Your task to perform on an android device: Show the shopping cart on ebay. Search for acer nitro on ebay, select the first entry, add it to the cart, then select checkout. Image 0: 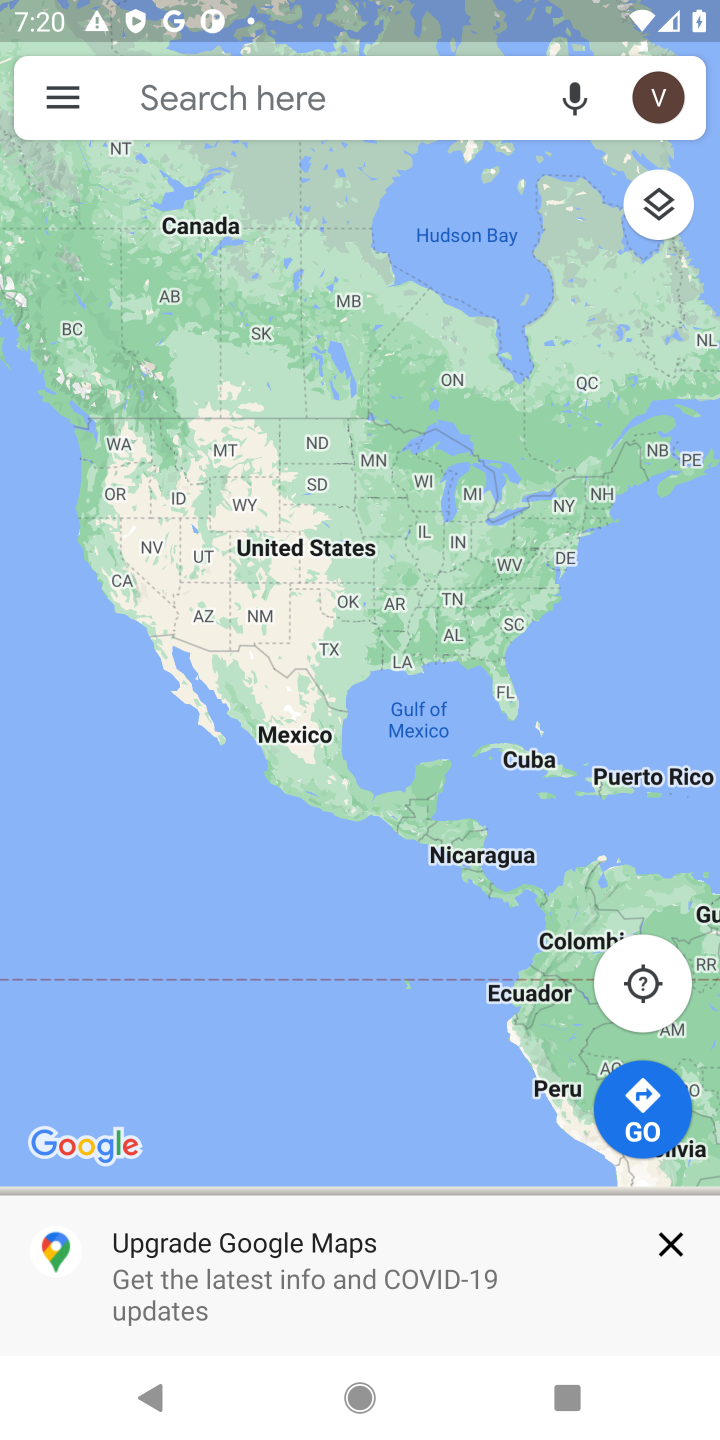
Step 0: press home button
Your task to perform on an android device: Show the shopping cart on ebay. Search for acer nitro on ebay, select the first entry, add it to the cart, then select checkout. Image 1: 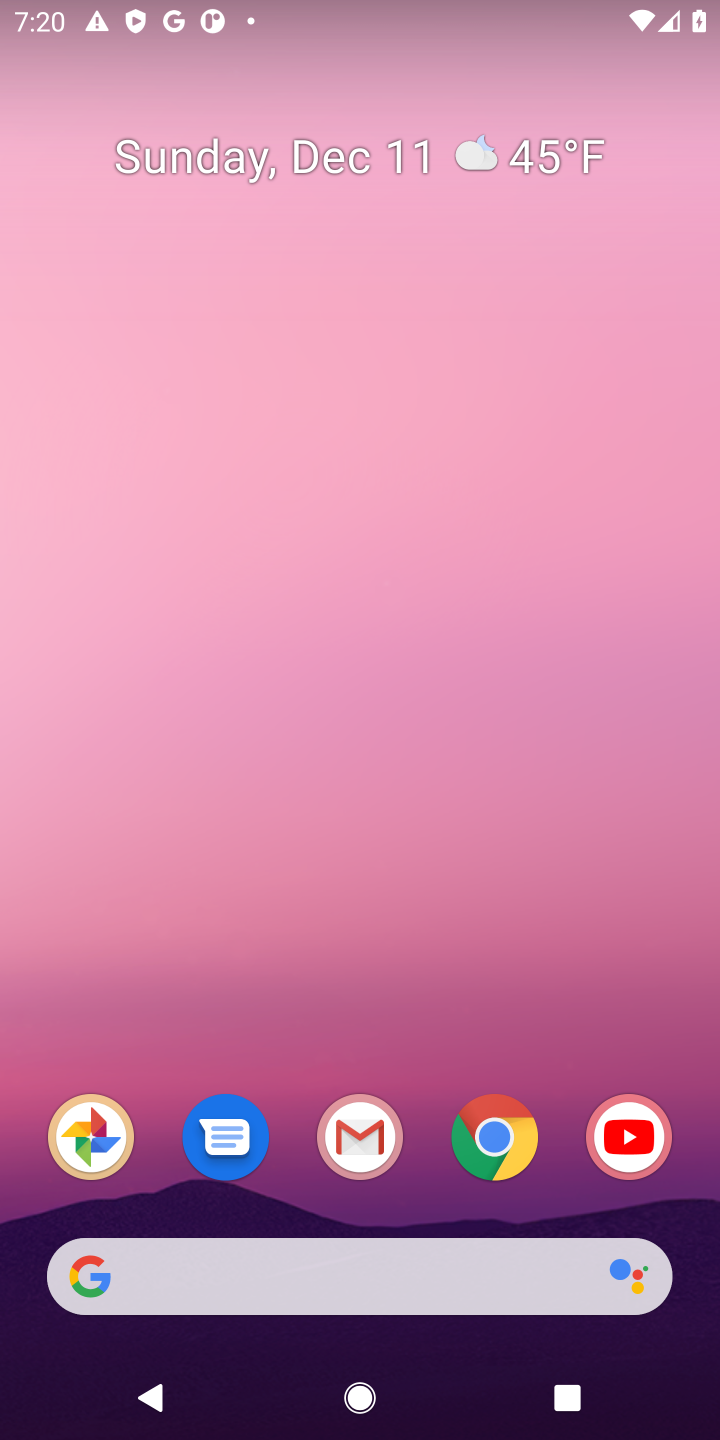
Step 1: click (505, 1149)
Your task to perform on an android device: Show the shopping cart on ebay. Search for acer nitro on ebay, select the first entry, add it to the cart, then select checkout. Image 2: 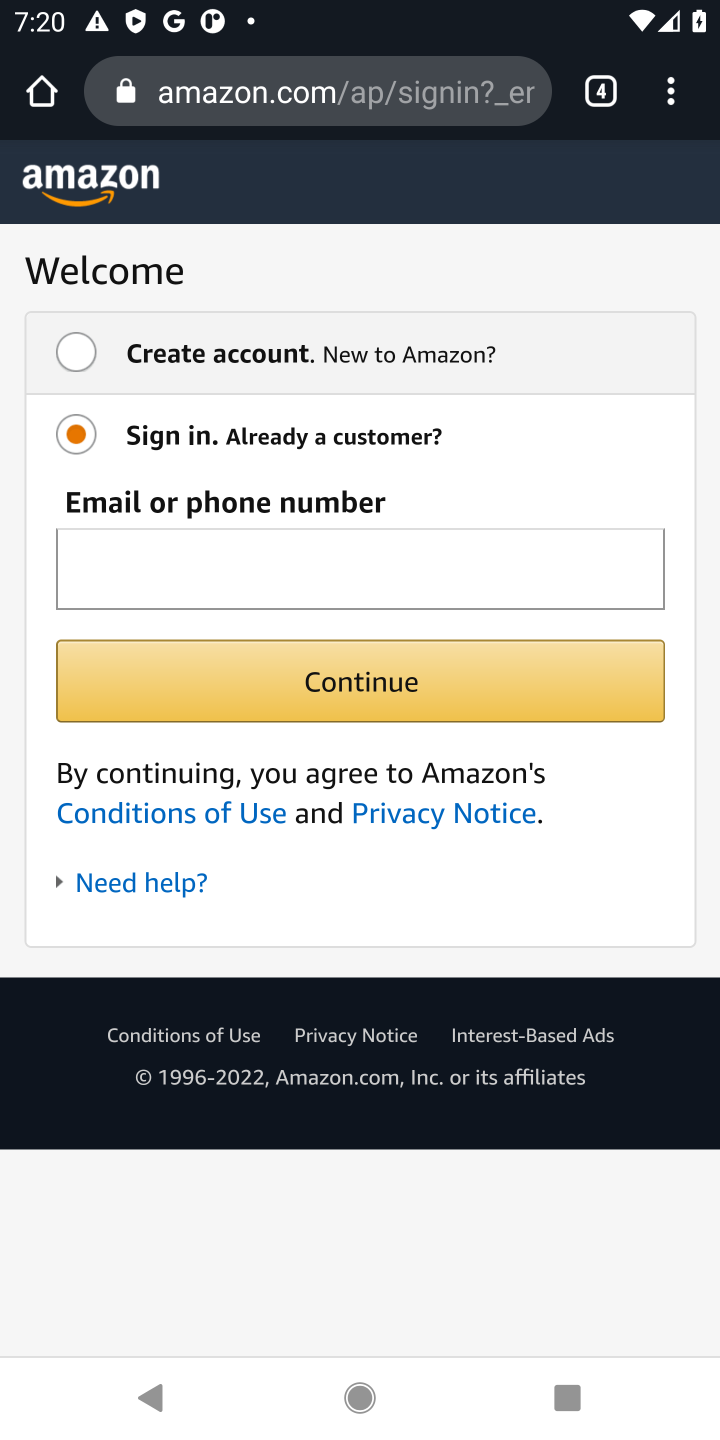
Step 2: click (328, 84)
Your task to perform on an android device: Show the shopping cart on ebay. Search for acer nitro on ebay, select the first entry, add it to the cart, then select checkout. Image 3: 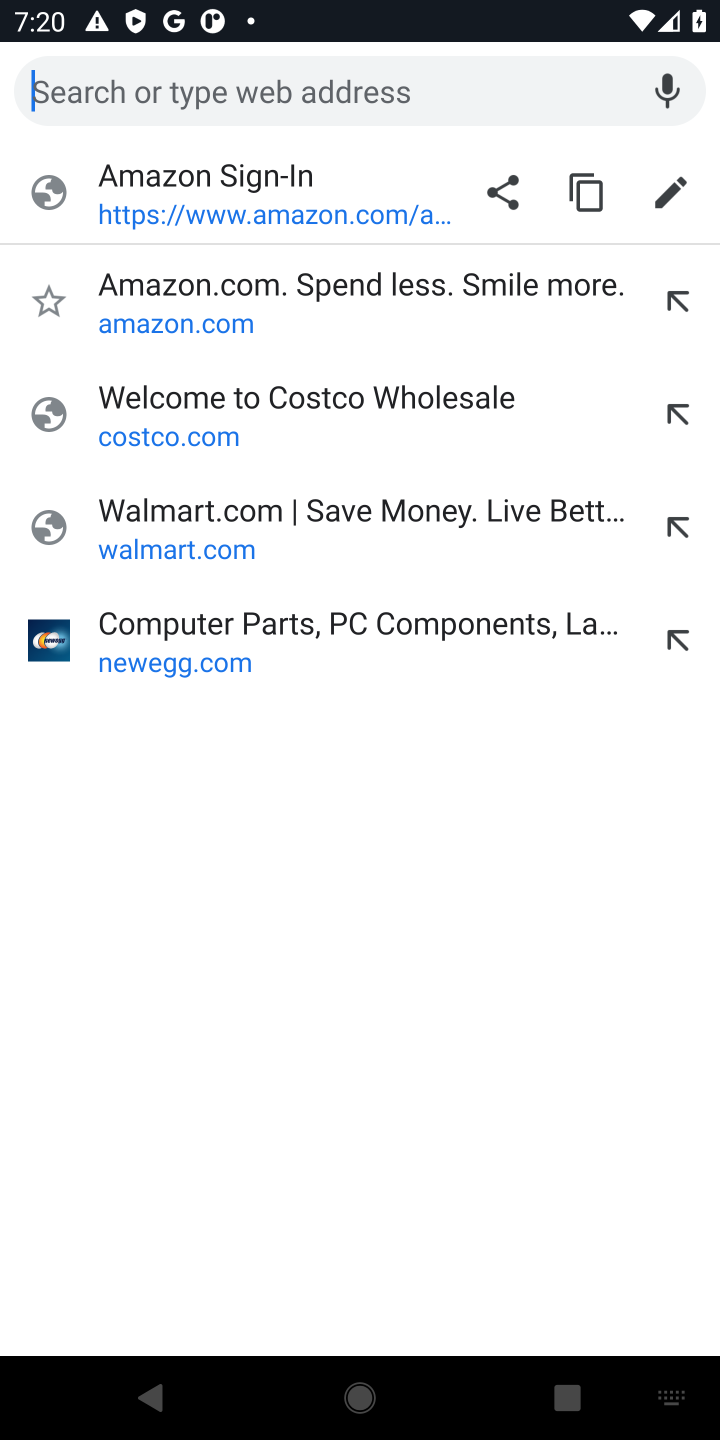
Step 3: type "ebay"
Your task to perform on an android device: Show the shopping cart on ebay. Search for acer nitro on ebay, select the first entry, add it to the cart, then select checkout. Image 4: 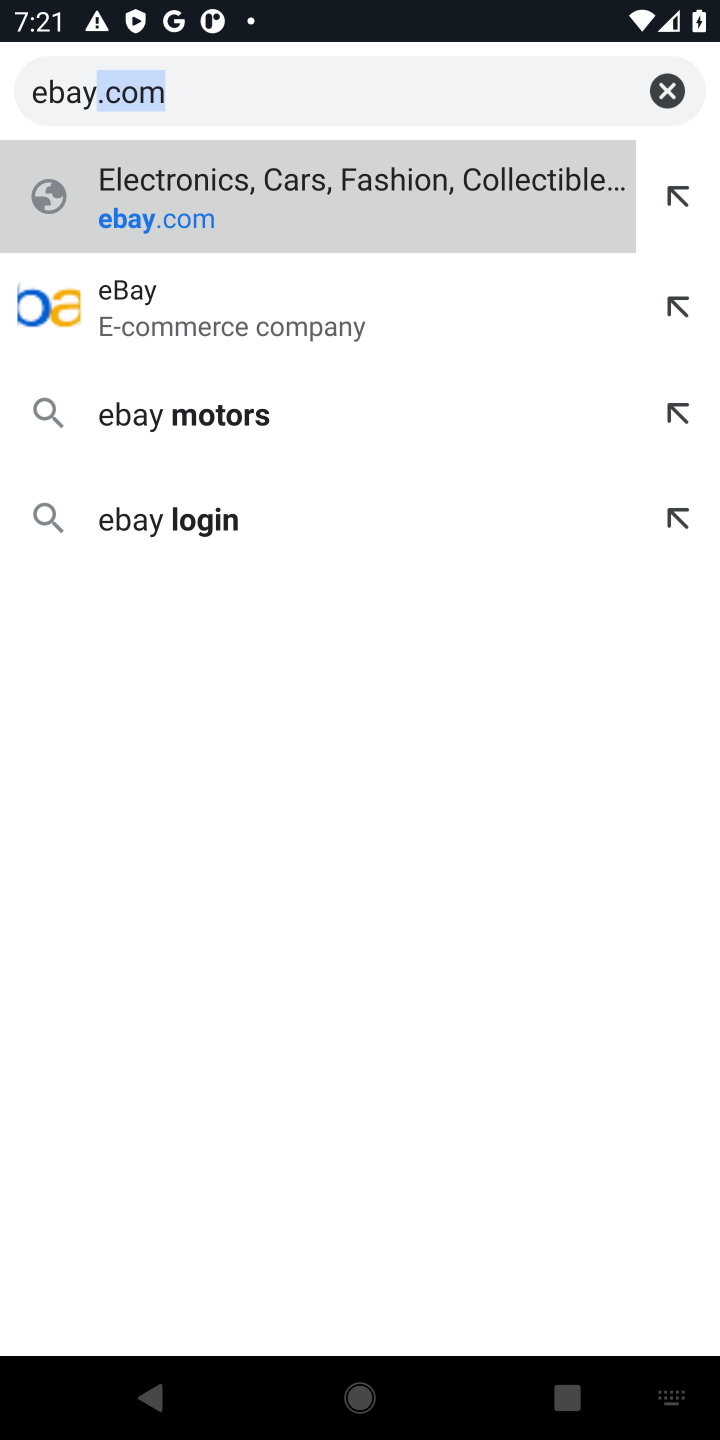
Step 4: click (96, 315)
Your task to perform on an android device: Show the shopping cart on ebay. Search for acer nitro on ebay, select the first entry, add it to the cart, then select checkout. Image 5: 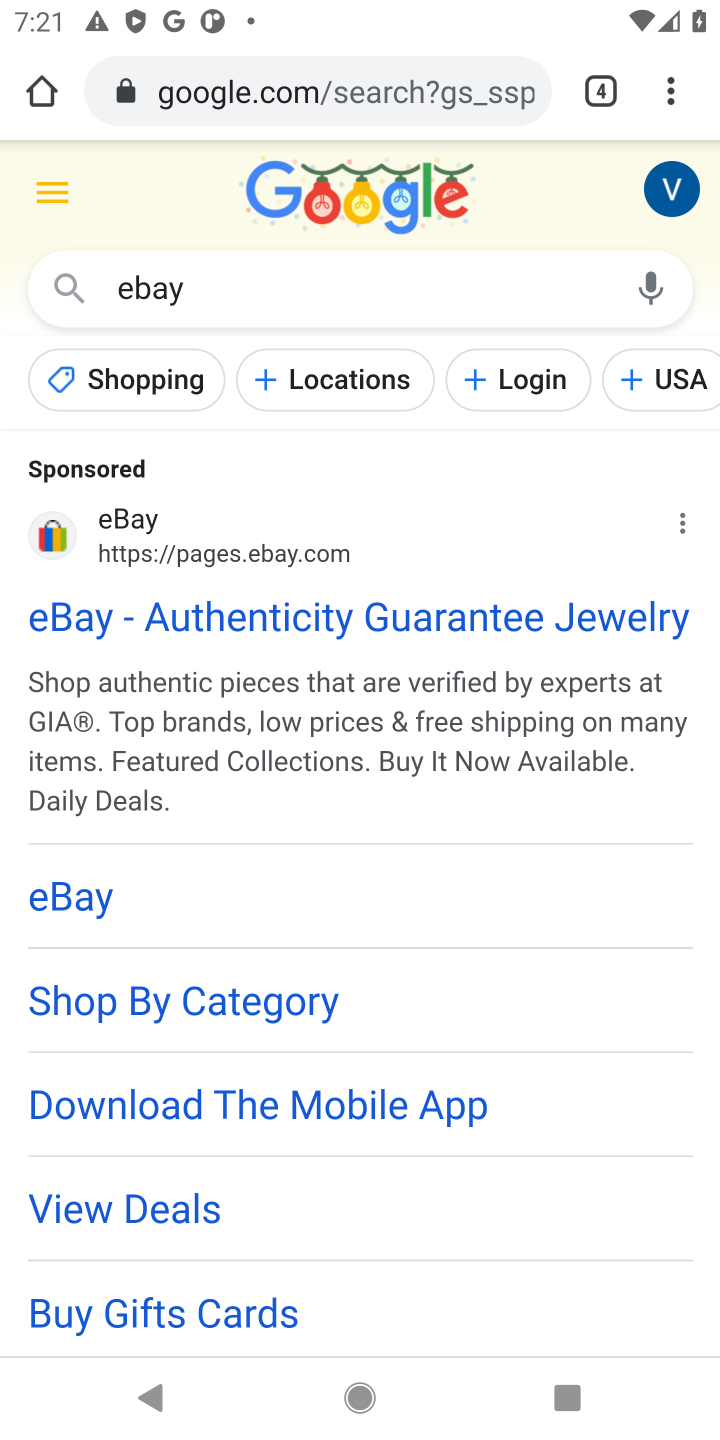
Step 5: click (141, 610)
Your task to perform on an android device: Show the shopping cart on ebay. Search for acer nitro on ebay, select the first entry, add it to the cart, then select checkout. Image 6: 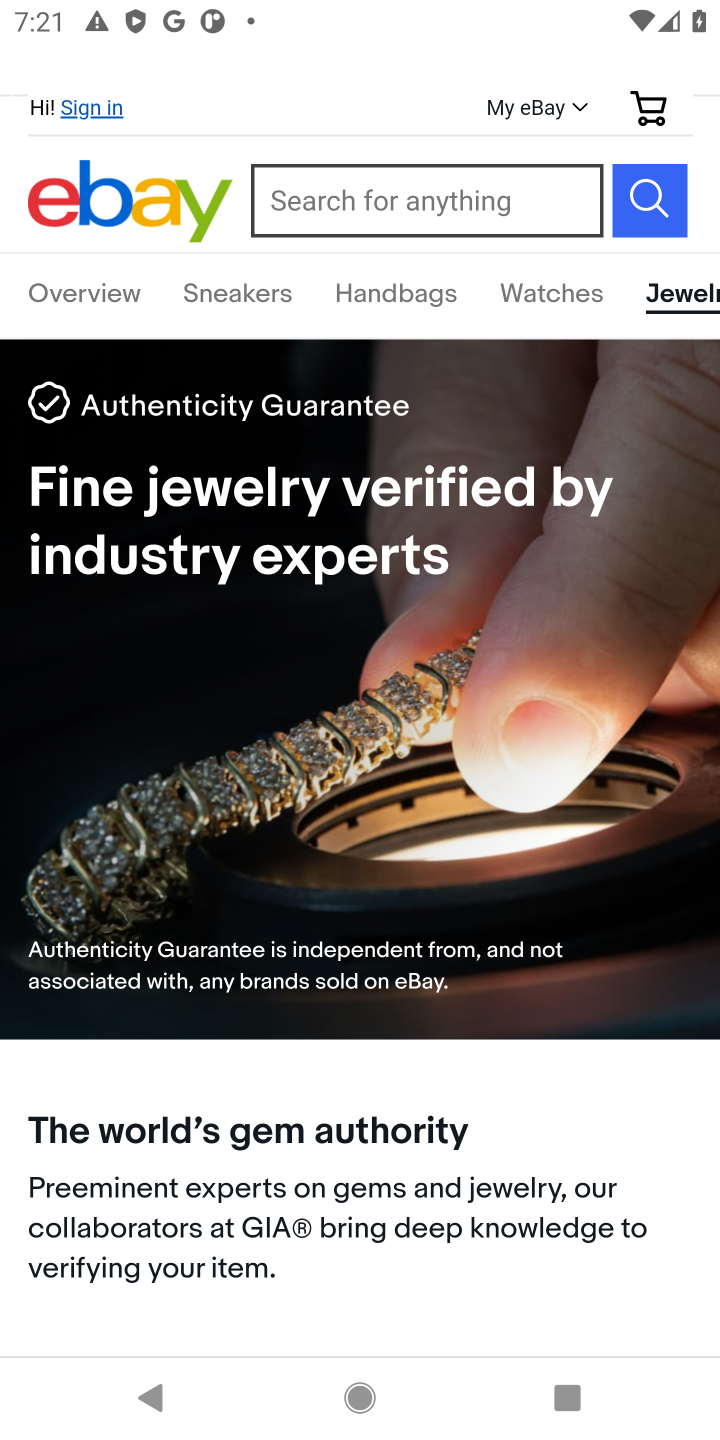
Step 6: click (650, 97)
Your task to perform on an android device: Show the shopping cart on ebay. Search for acer nitro on ebay, select the first entry, add it to the cart, then select checkout. Image 7: 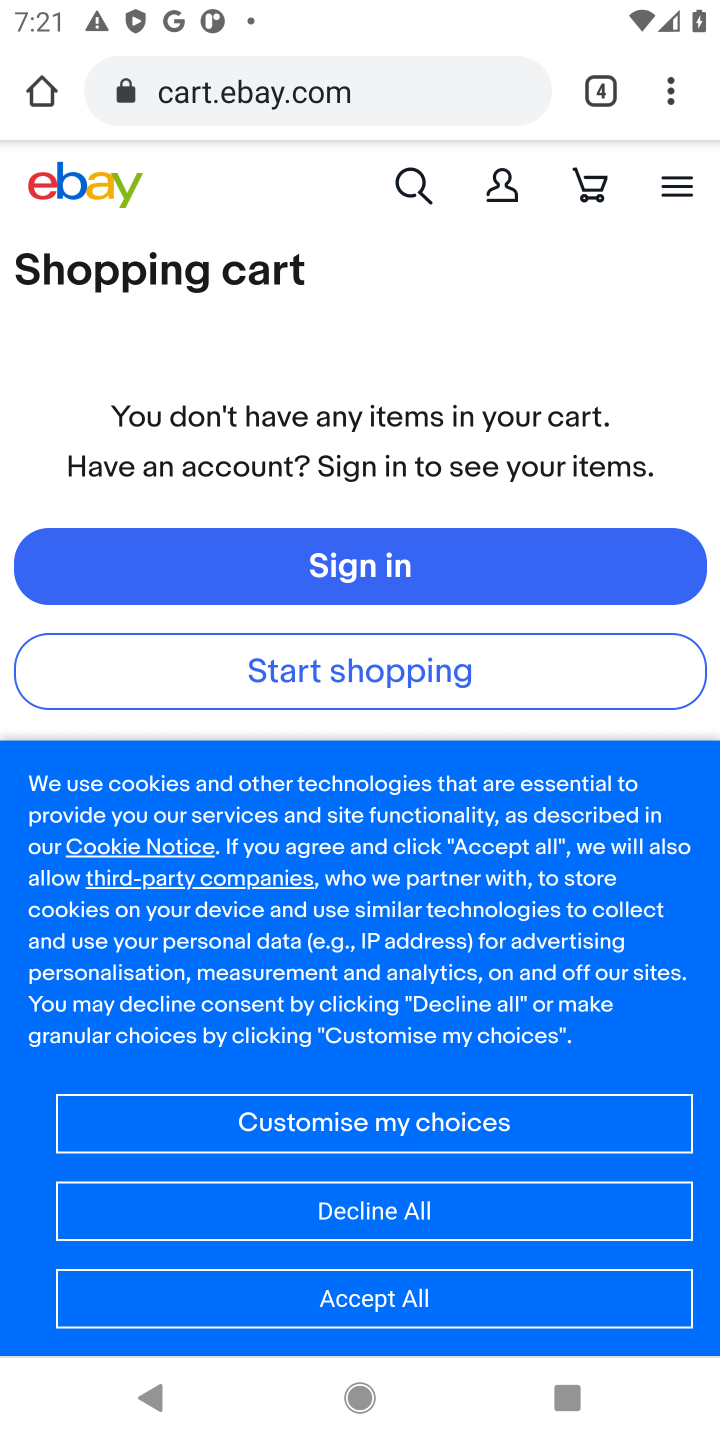
Step 7: click (420, 177)
Your task to perform on an android device: Show the shopping cart on ebay. Search for acer nitro on ebay, select the first entry, add it to the cart, then select checkout. Image 8: 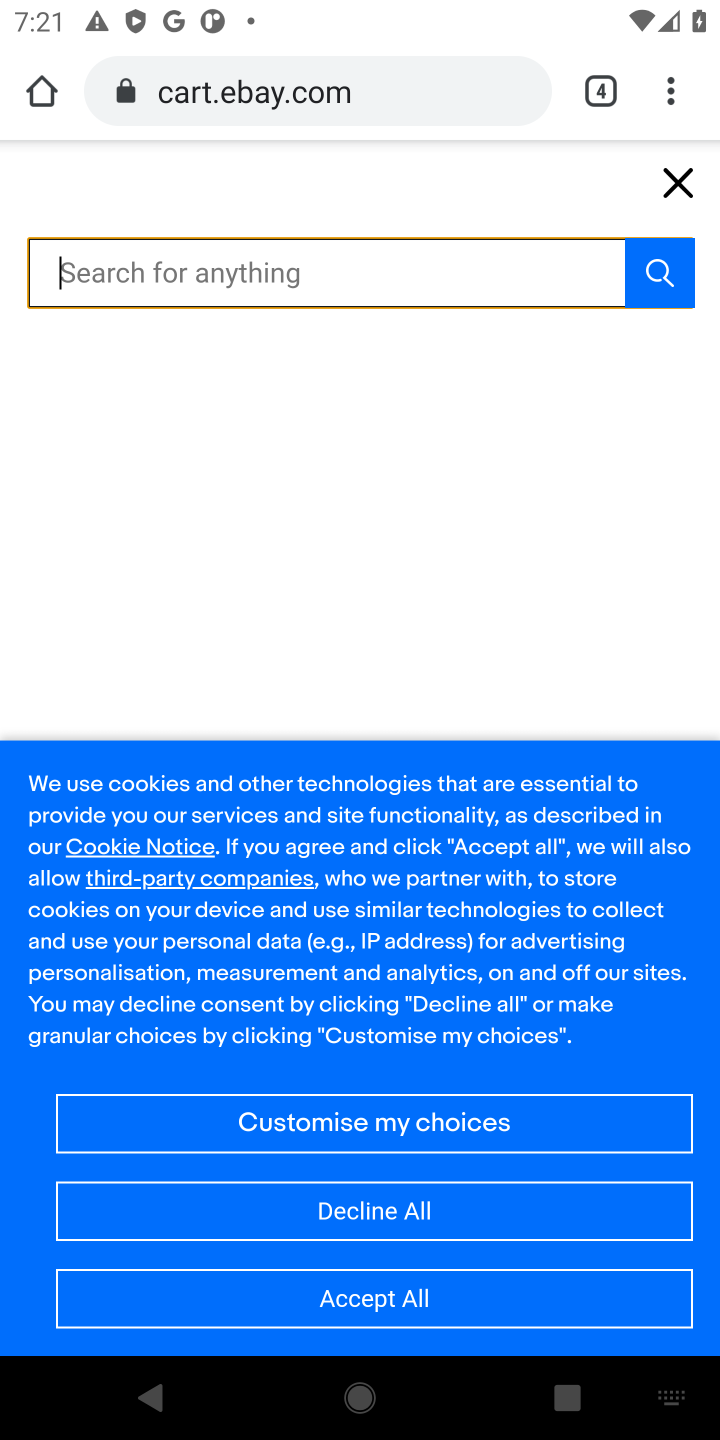
Step 8: type "acer nitro"
Your task to perform on an android device: Show the shopping cart on ebay. Search for acer nitro on ebay, select the first entry, add it to the cart, then select checkout. Image 9: 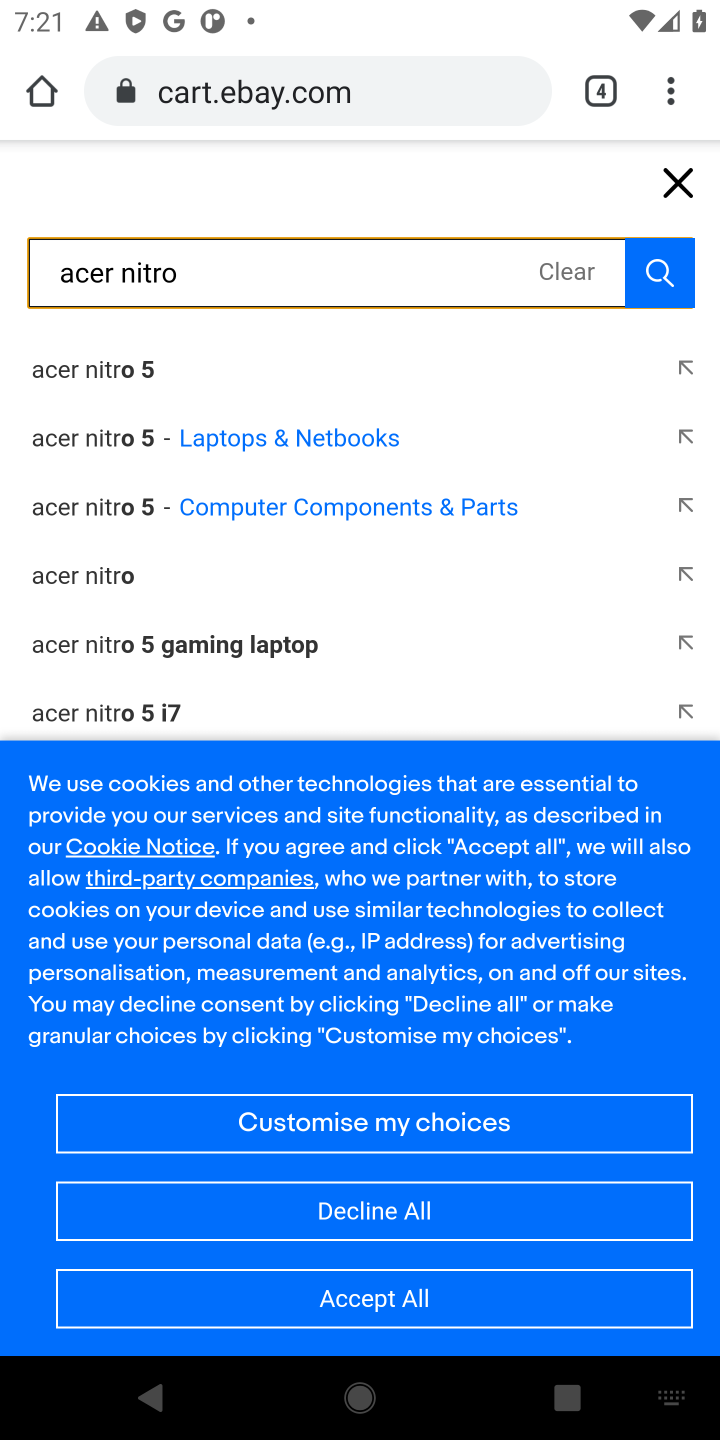
Step 9: click (667, 274)
Your task to perform on an android device: Show the shopping cart on ebay. Search for acer nitro on ebay, select the first entry, add it to the cart, then select checkout. Image 10: 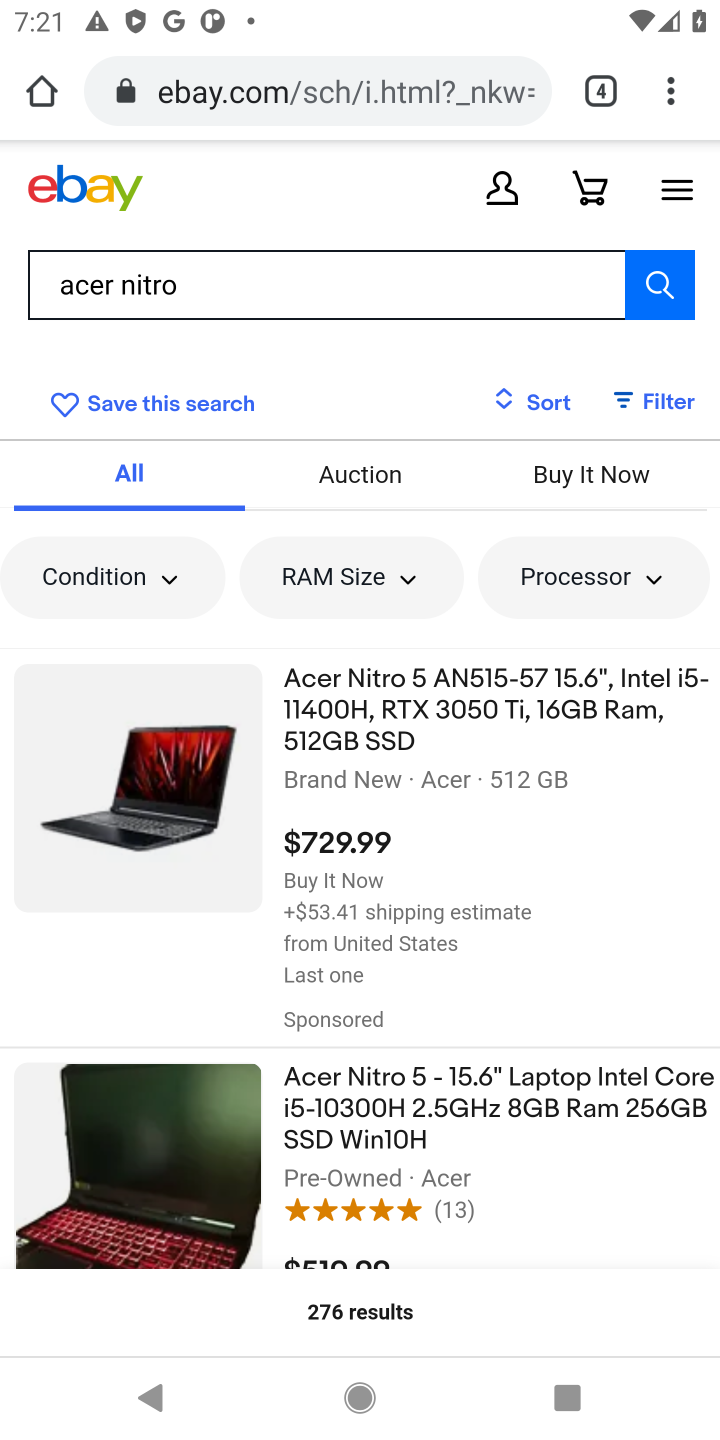
Step 10: click (455, 735)
Your task to perform on an android device: Show the shopping cart on ebay. Search for acer nitro on ebay, select the first entry, add it to the cart, then select checkout. Image 11: 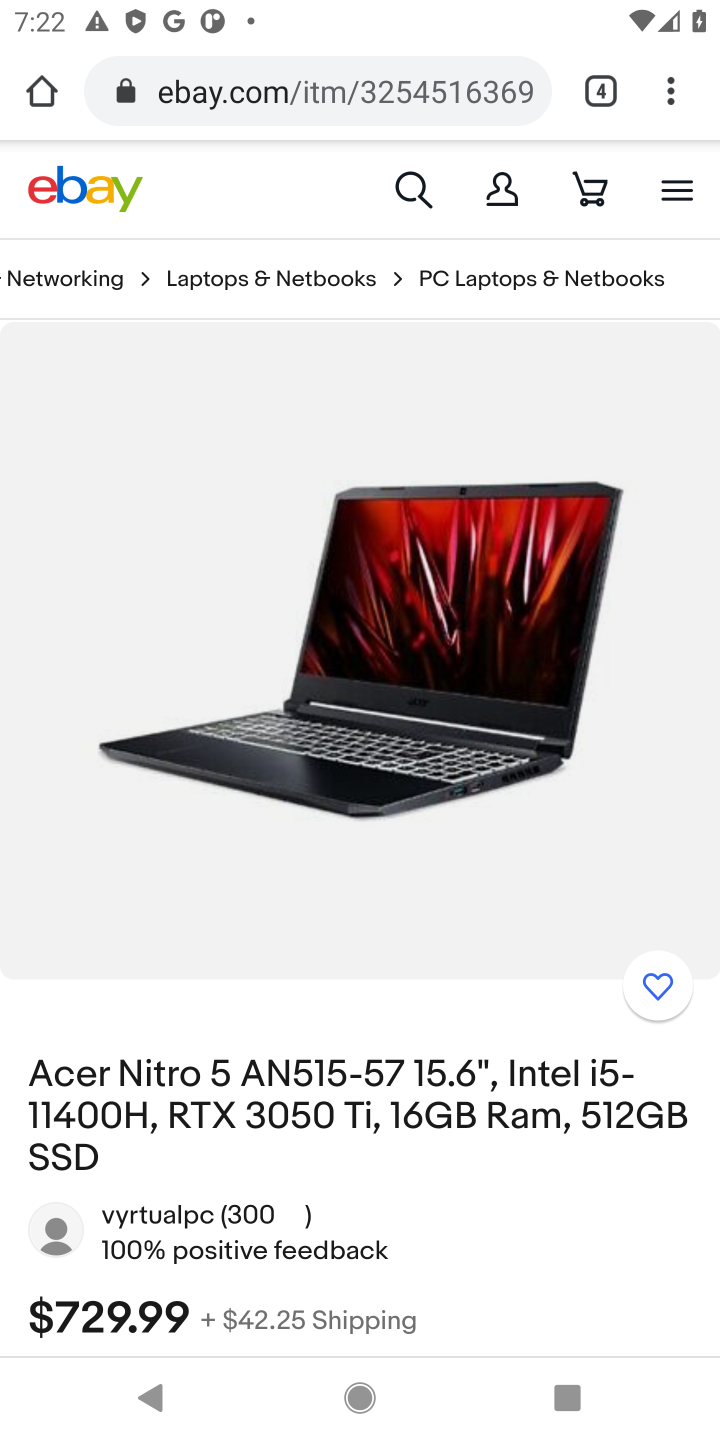
Step 11: drag from (235, 1167) to (252, 154)
Your task to perform on an android device: Show the shopping cart on ebay. Search for acer nitro on ebay, select the first entry, add it to the cart, then select checkout. Image 12: 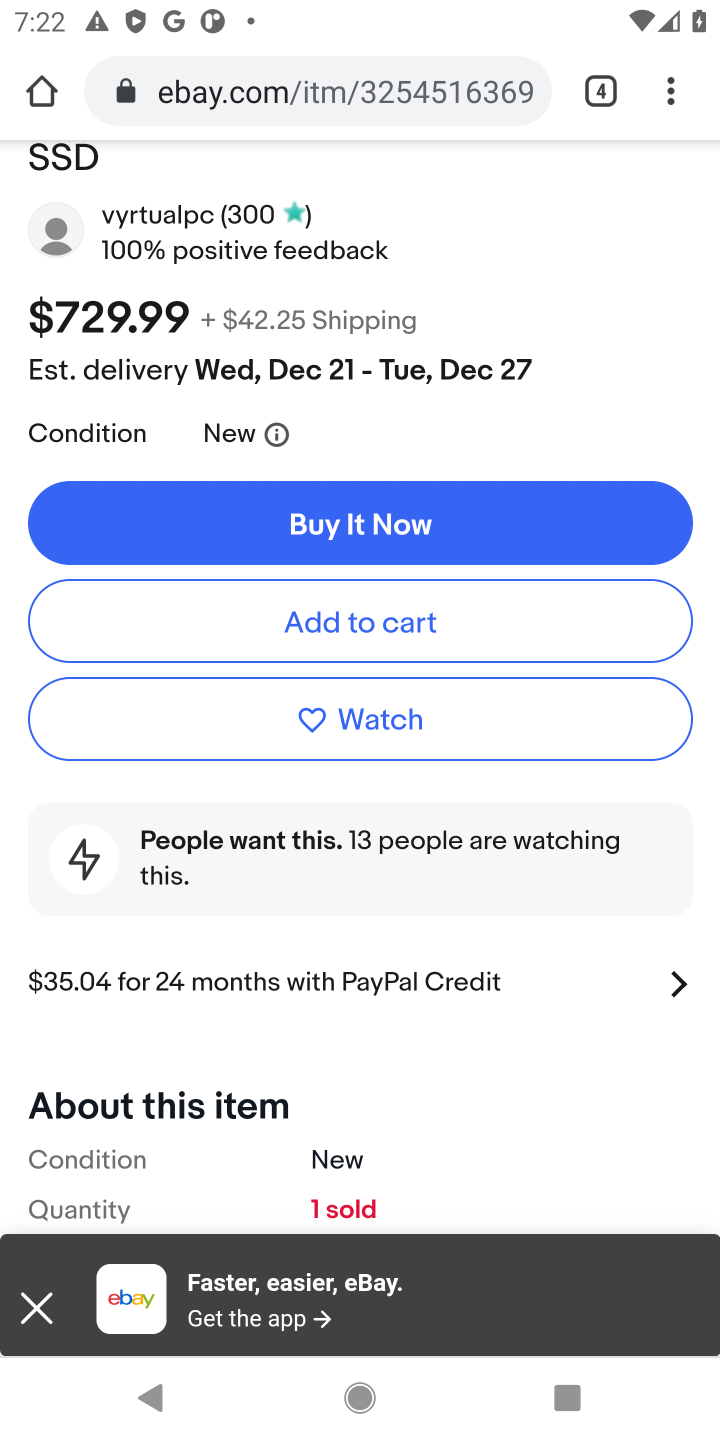
Step 12: click (403, 603)
Your task to perform on an android device: Show the shopping cart on ebay. Search for acer nitro on ebay, select the first entry, add it to the cart, then select checkout. Image 13: 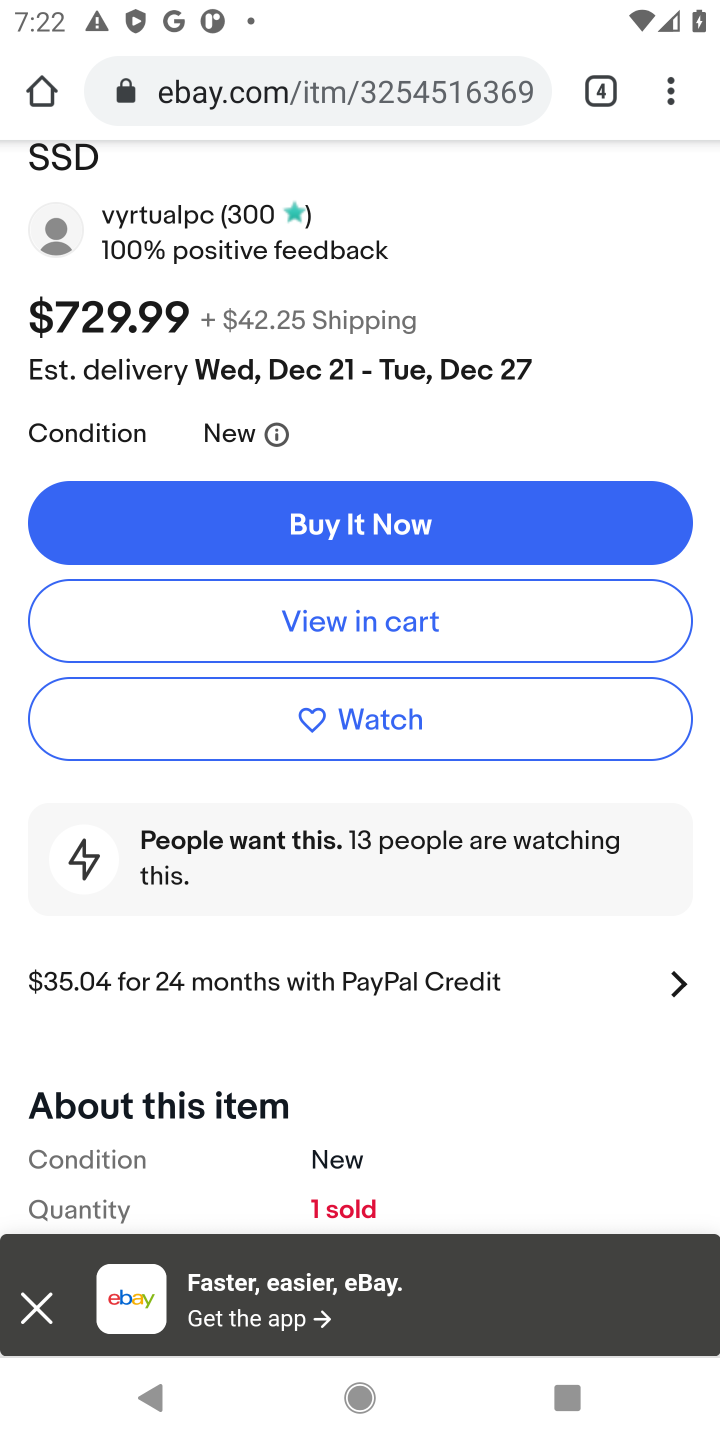
Step 13: click (403, 603)
Your task to perform on an android device: Show the shopping cart on ebay. Search for acer nitro on ebay, select the first entry, add it to the cart, then select checkout. Image 14: 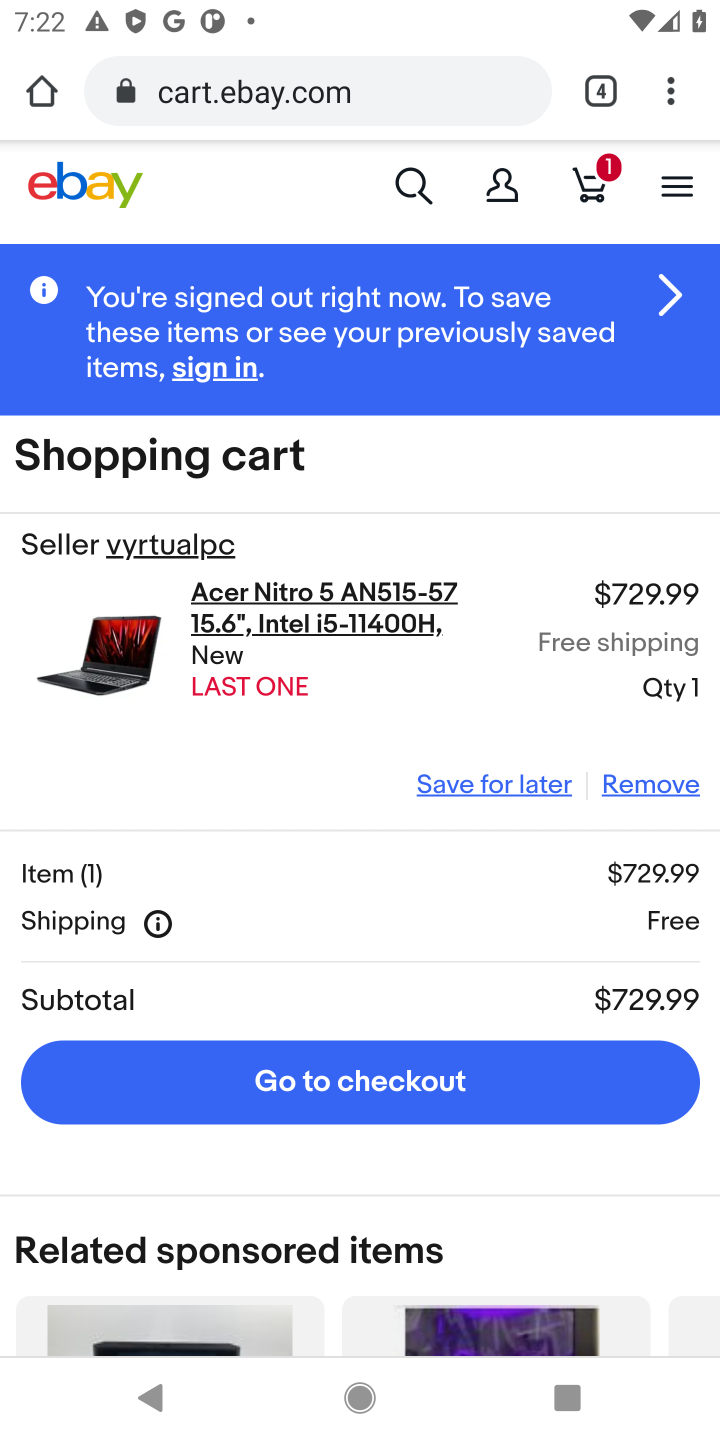
Step 14: click (344, 1065)
Your task to perform on an android device: Show the shopping cart on ebay. Search for acer nitro on ebay, select the first entry, add it to the cart, then select checkout. Image 15: 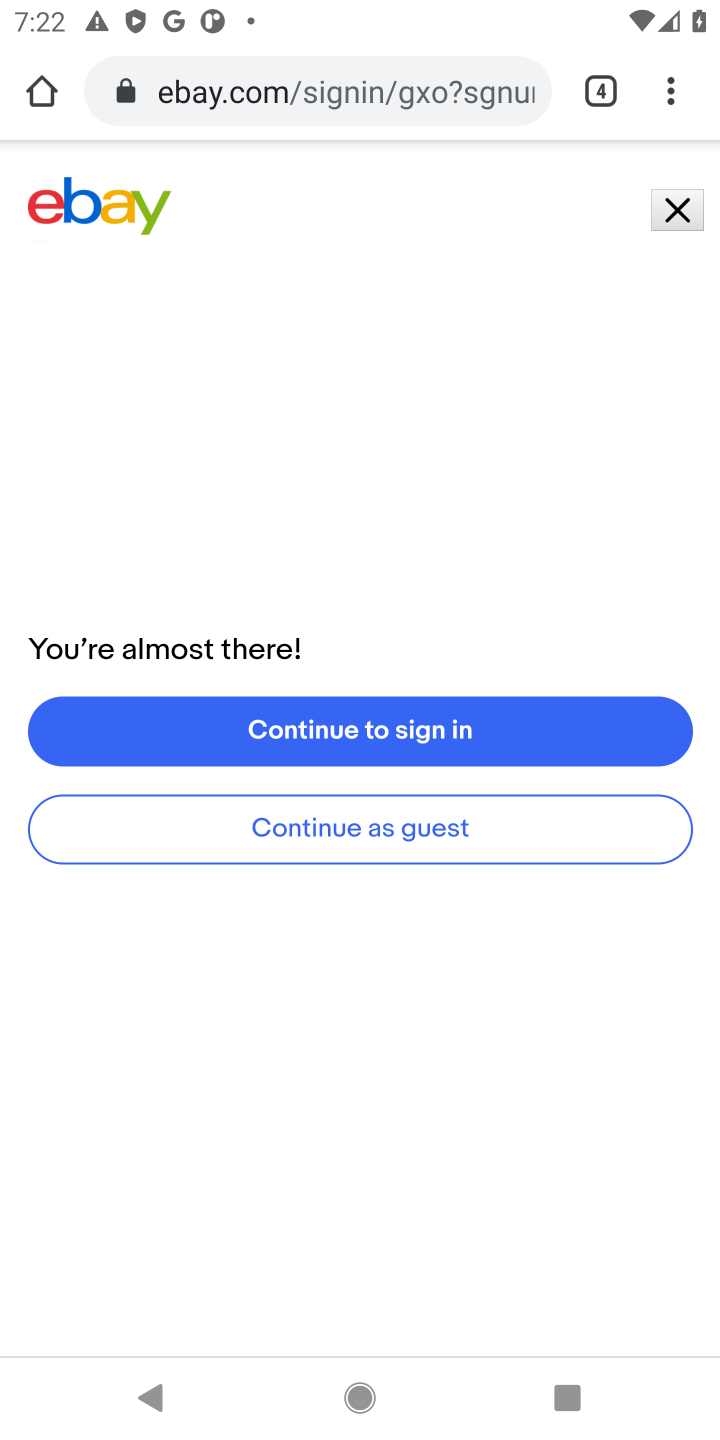
Step 15: task complete